Your task to perform on an android device: Check the weather Image 0: 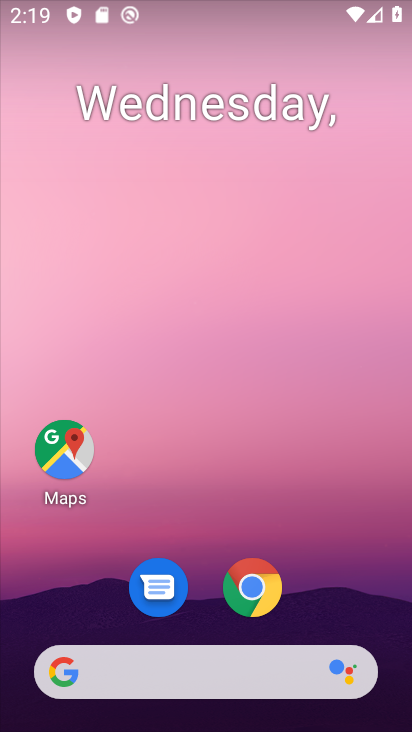
Step 0: drag from (358, 630) to (319, 245)
Your task to perform on an android device: Check the weather Image 1: 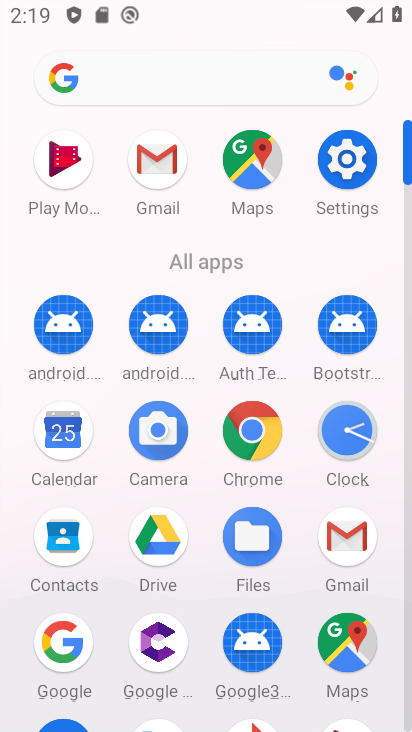
Step 1: click (217, 88)
Your task to perform on an android device: Check the weather Image 2: 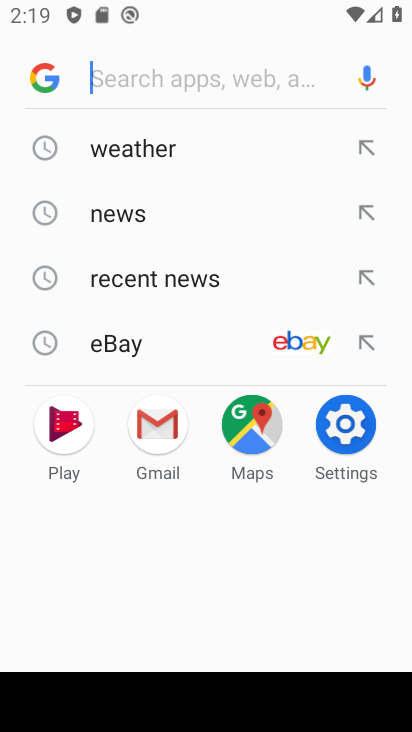
Step 2: click (192, 136)
Your task to perform on an android device: Check the weather Image 3: 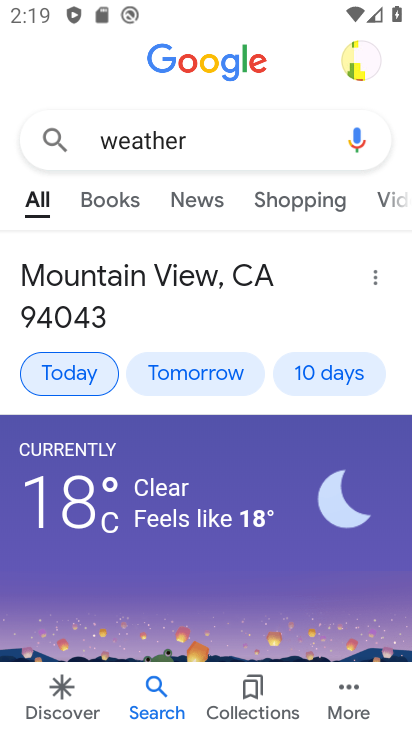
Step 3: task complete